Your task to perform on an android device: toggle notifications settings in the gmail app Image 0: 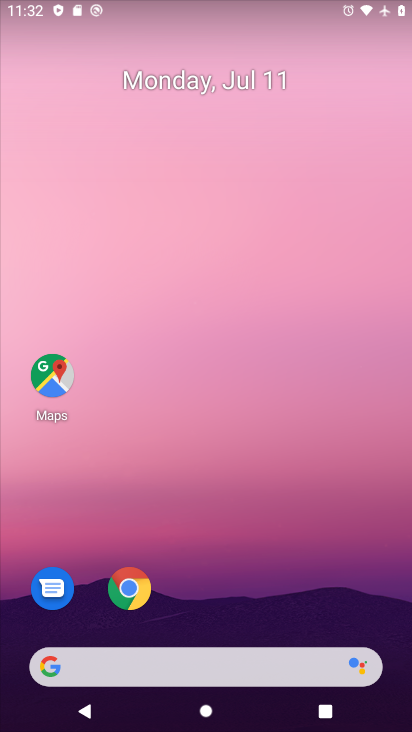
Step 0: drag from (154, 650) to (278, 95)
Your task to perform on an android device: toggle notifications settings in the gmail app Image 1: 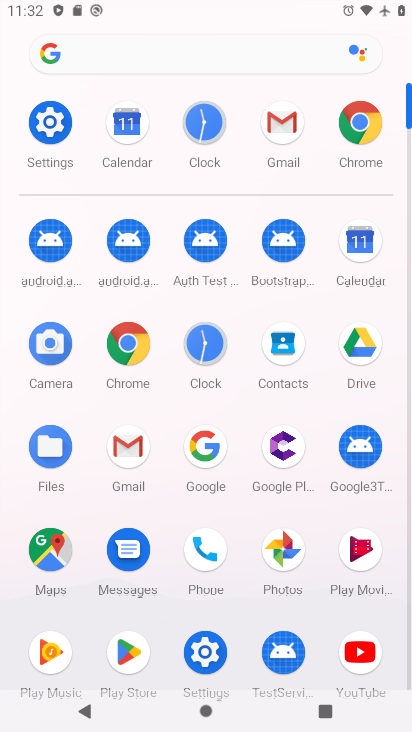
Step 1: click (276, 126)
Your task to perform on an android device: toggle notifications settings in the gmail app Image 2: 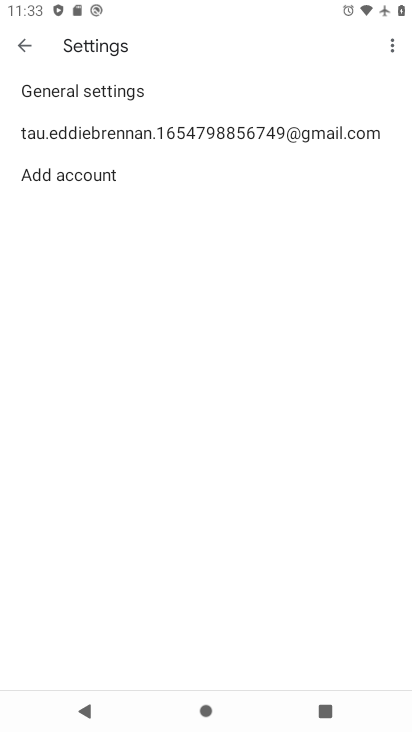
Step 2: click (236, 122)
Your task to perform on an android device: toggle notifications settings in the gmail app Image 3: 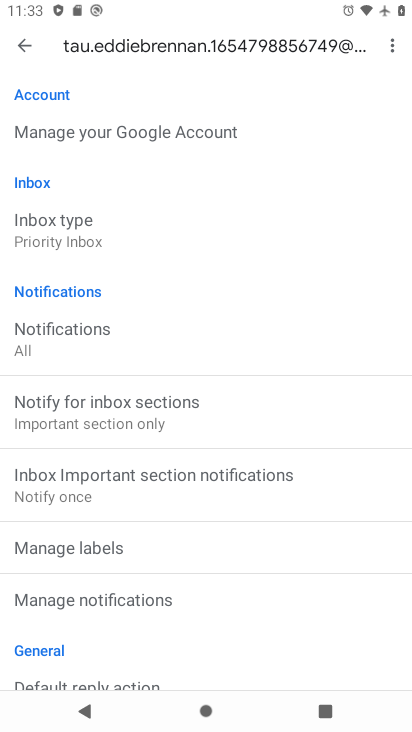
Step 3: click (85, 331)
Your task to perform on an android device: toggle notifications settings in the gmail app Image 4: 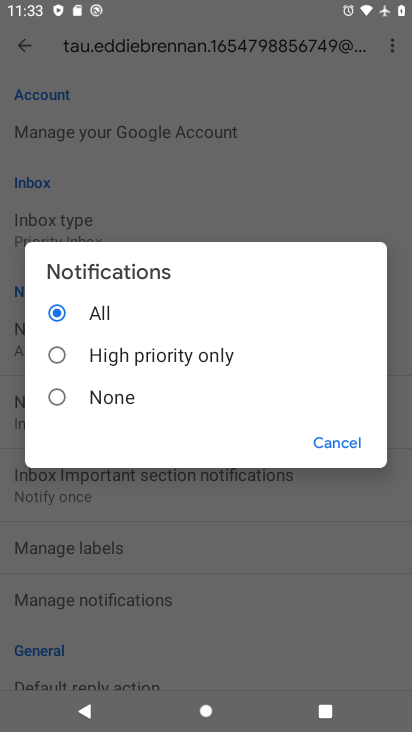
Step 4: click (61, 400)
Your task to perform on an android device: toggle notifications settings in the gmail app Image 5: 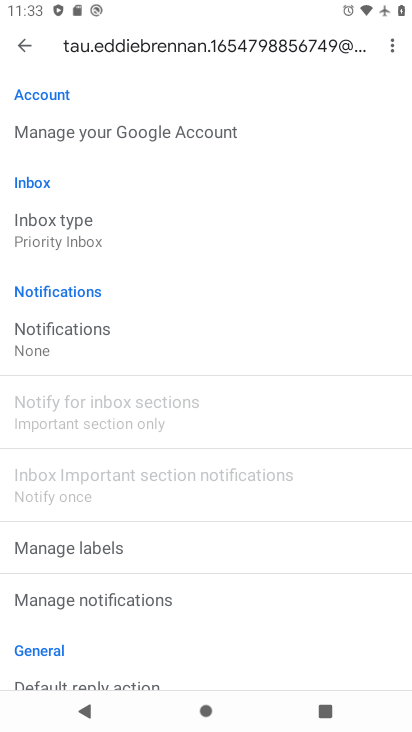
Step 5: task complete